Your task to perform on an android device: Open sound settings Image 0: 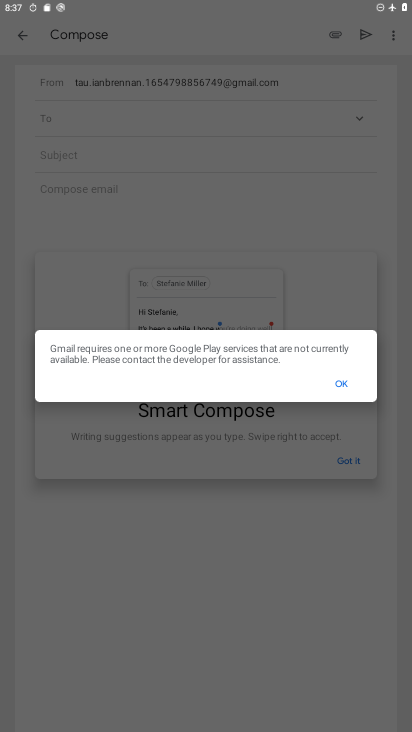
Step 0: press home button
Your task to perform on an android device: Open sound settings Image 1: 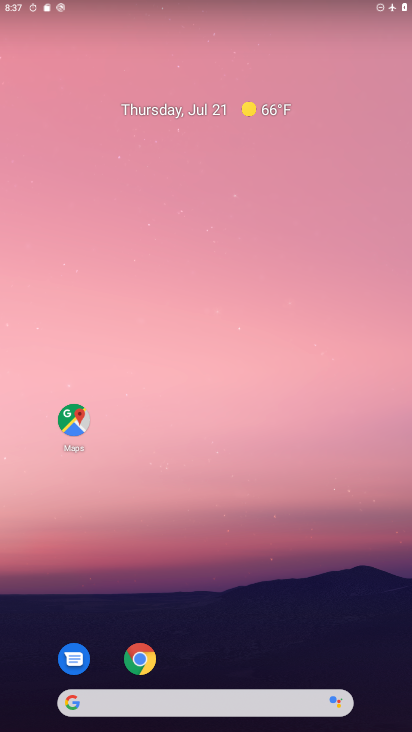
Step 1: drag from (187, 659) to (196, 311)
Your task to perform on an android device: Open sound settings Image 2: 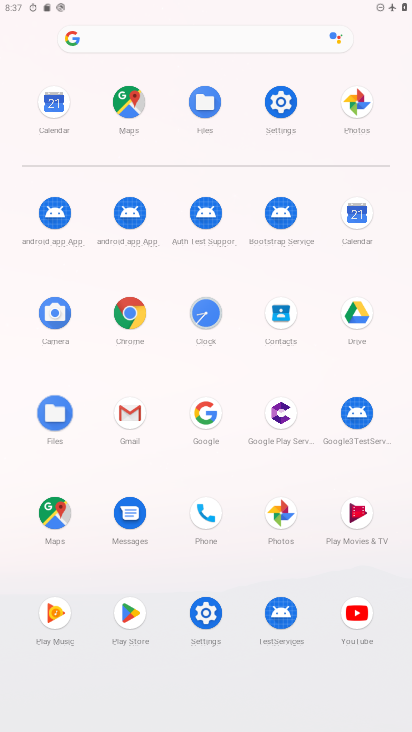
Step 2: click (196, 616)
Your task to perform on an android device: Open sound settings Image 3: 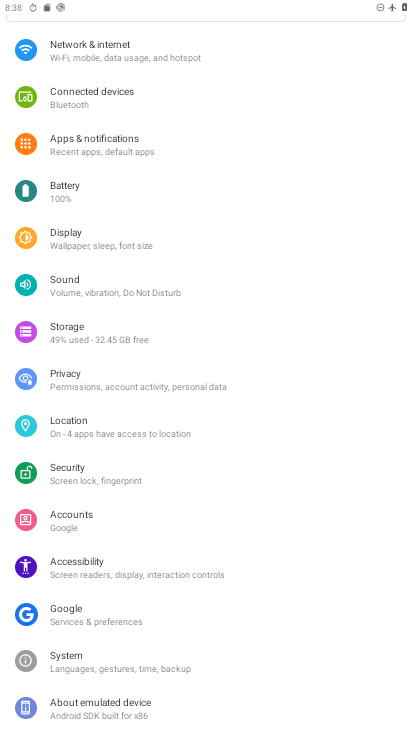
Step 3: click (96, 290)
Your task to perform on an android device: Open sound settings Image 4: 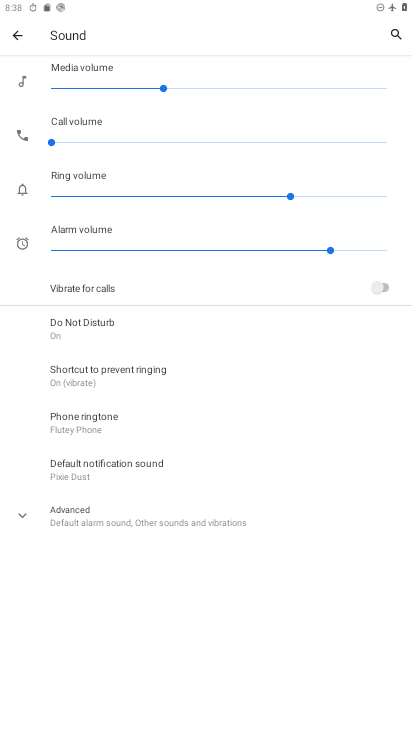
Step 4: task complete